Your task to perform on an android device: Open ESPN.com Image 0: 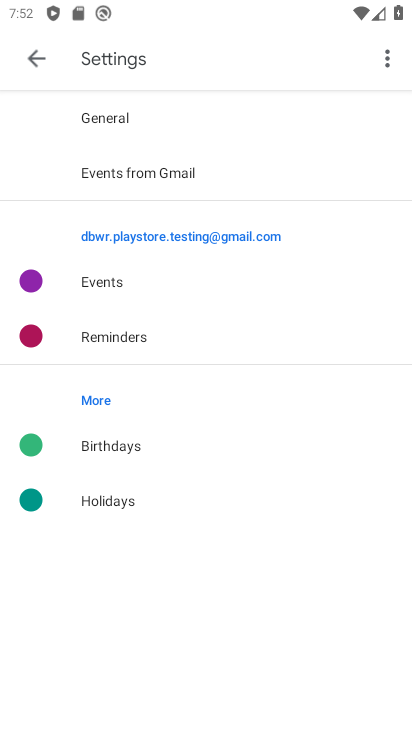
Step 0: press back button
Your task to perform on an android device: Open ESPN.com Image 1: 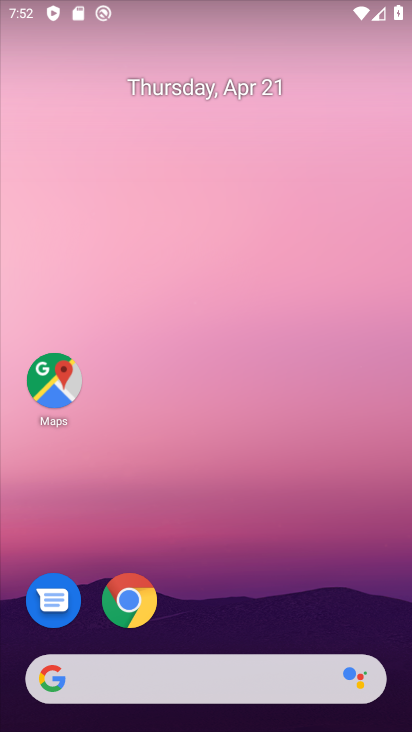
Step 1: click (138, 610)
Your task to perform on an android device: Open ESPN.com Image 2: 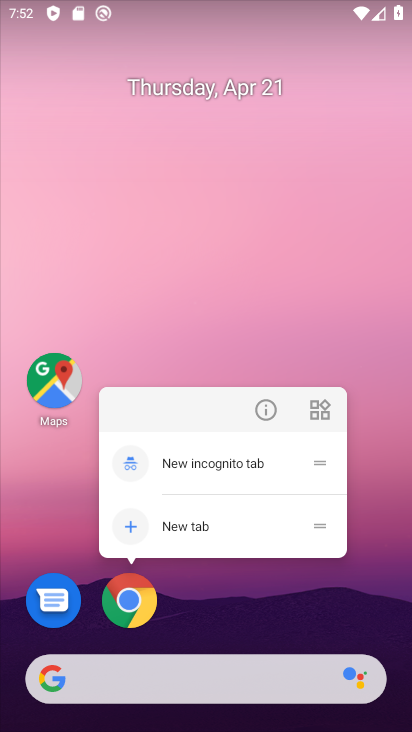
Step 2: click (138, 605)
Your task to perform on an android device: Open ESPN.com Image 3: 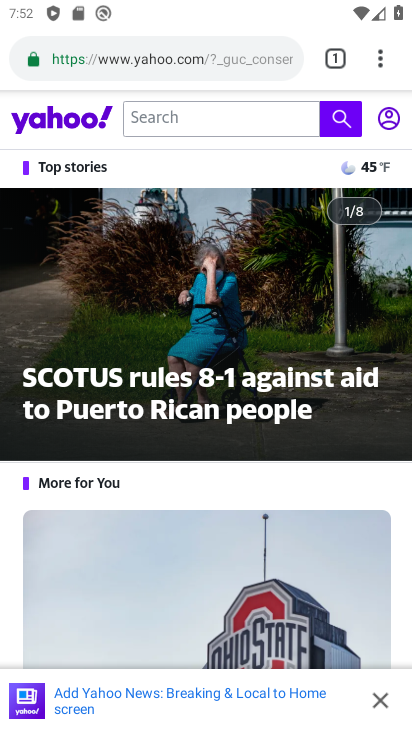
Step 3: click (194, 61)
Your task to perform on an android device: Open ESPN.com Image 4: 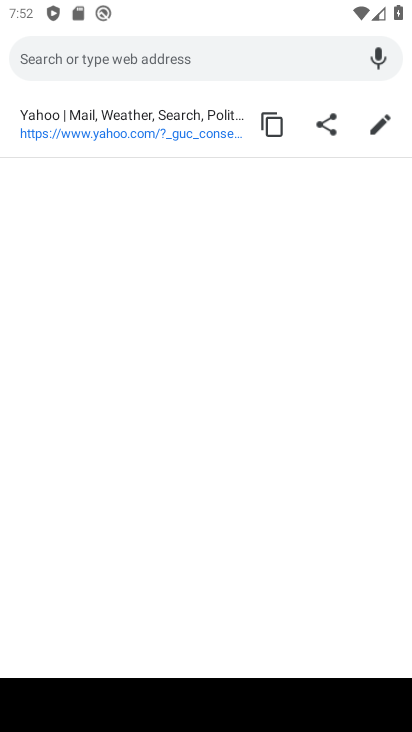
Step 4: press back button
Your task to perform on an android device: Open ESPN.com Image 5: 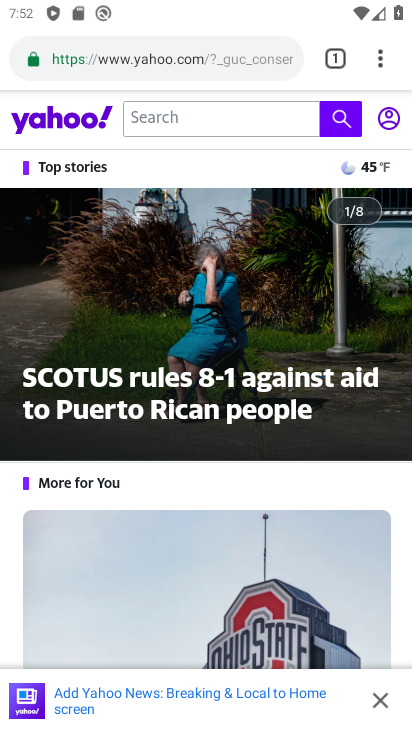
Step 5: press back button
Your task to perform on an android device: Open ESPN.com Image 6: 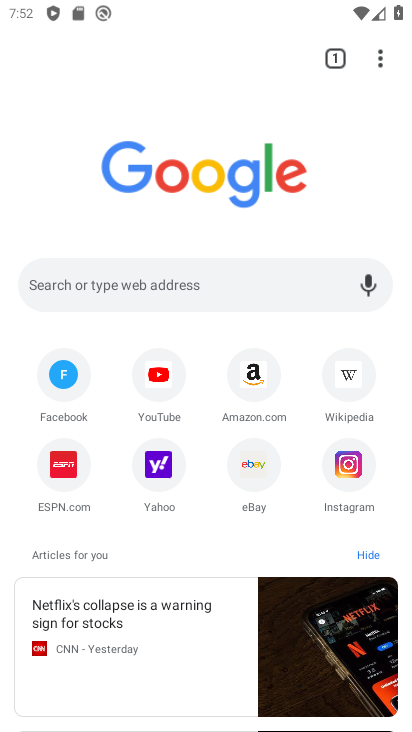
Step 6: click (62, 478)
Your task to perform on an android device: Open ESPN.com Image 7: 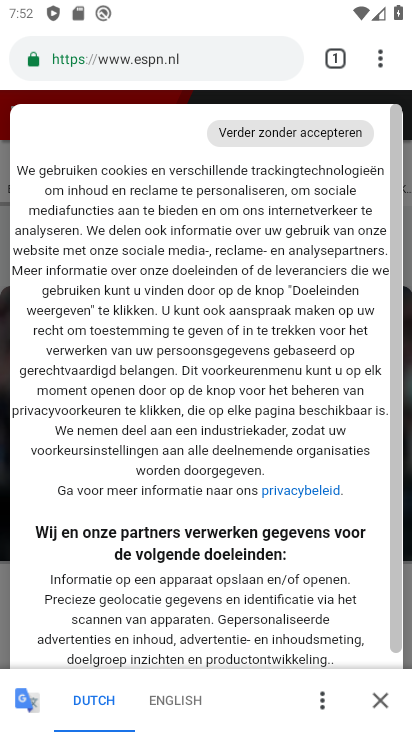
Step 7: task complete